Your task to perform on an android device: Go to wifi settings Image 0: 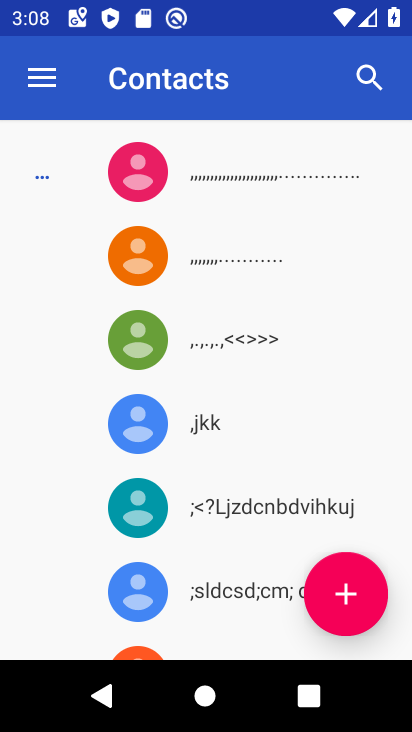
Step 0: press back button
Your task to perform on an android device: Go to wifi settings Image 1: 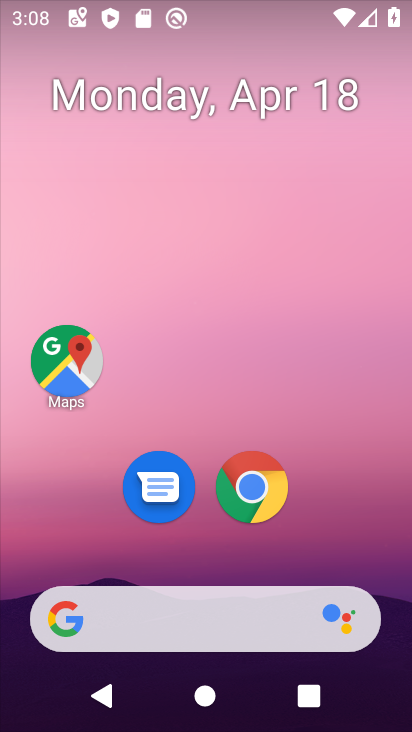
Step 1: drag from (386, 567) to (286, 2)
Your task to perform on an android device: Go to wifi settings Image 2: 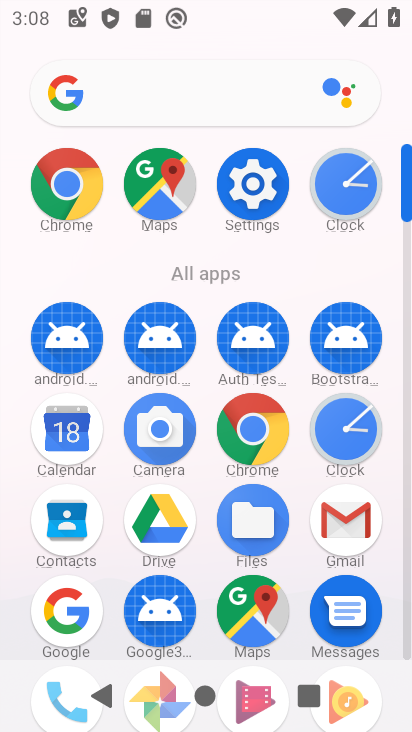
Step 2: click (251, 182)
Your task to perform on an android device: Go to wifi settings Image 3: 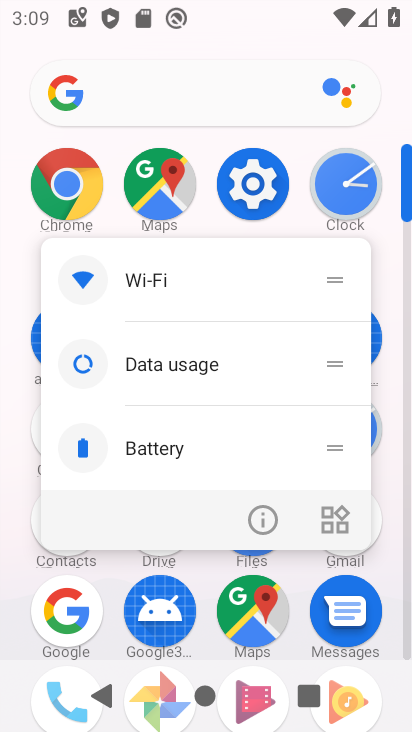
Step 3: click (199, 287)
Your task to perform on an android device: Go to wifi settings Image 4: 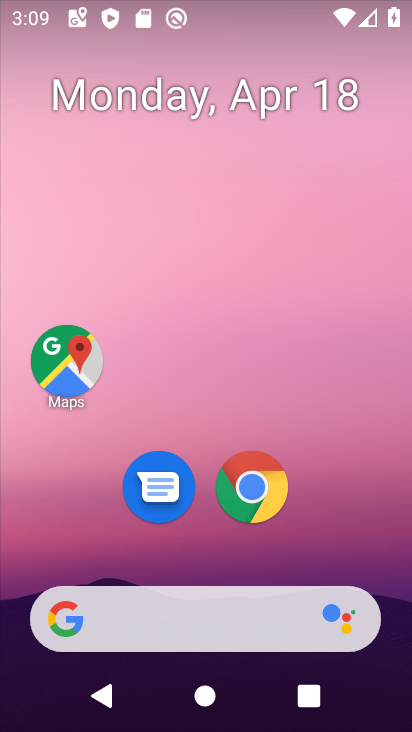
Step 4: drag from (355, 512) to (258, 0)
Your task to perform on an android device: Go to wifi settings Image 5: 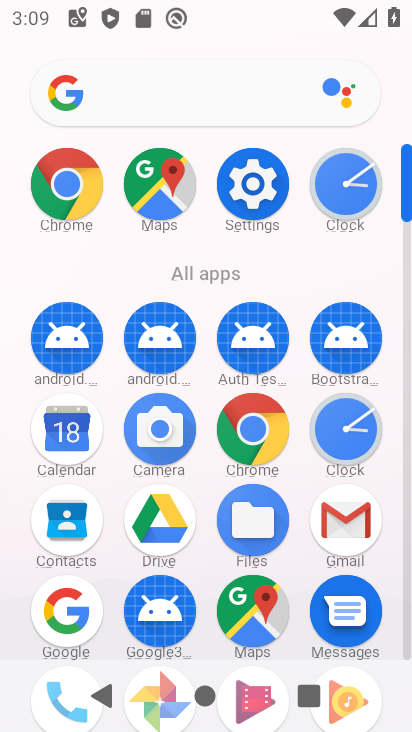
Step 5: click (254, 182)
Your task to perform on an android device: Go to wifi settings Image 6: 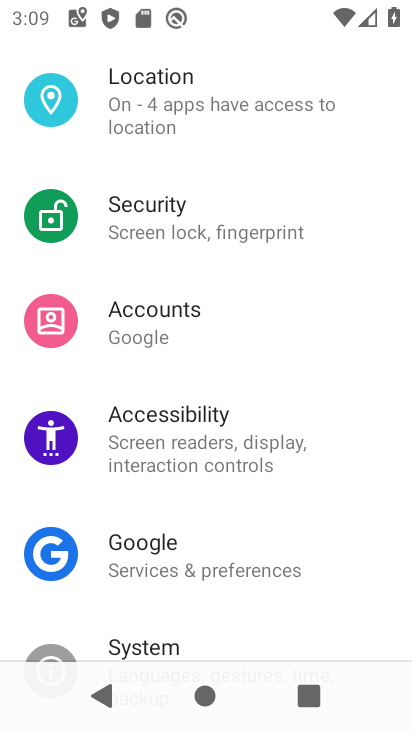
Step 6: drag from (270, 157) to (284, 500)
Your task to perform on an android device: Go to wifi settings Image 7: 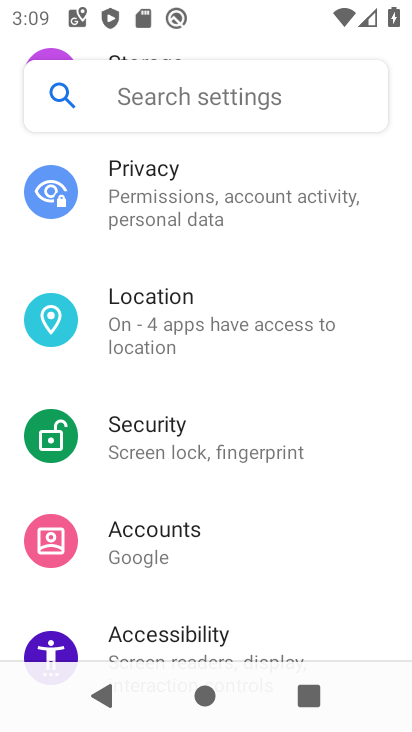
Step 7: drag from (252, 247) to (256, 679)
Your task to perform on an android device: Go to wifi settings Image 8: 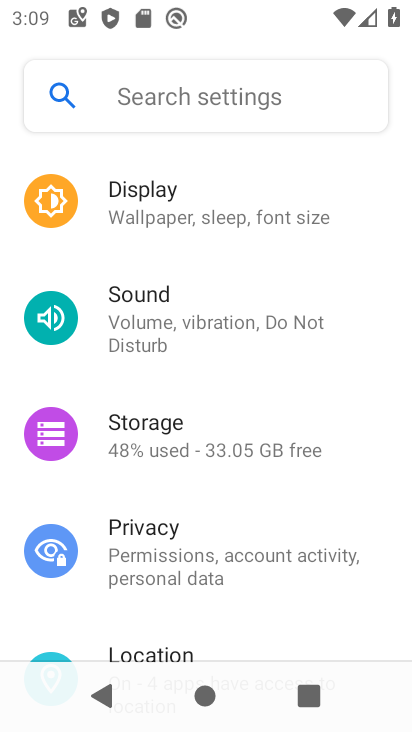
Step 8: drag from (257, 309) to (255, 731)
Your task to perform on an android device: Go to wifi settings Image 9: 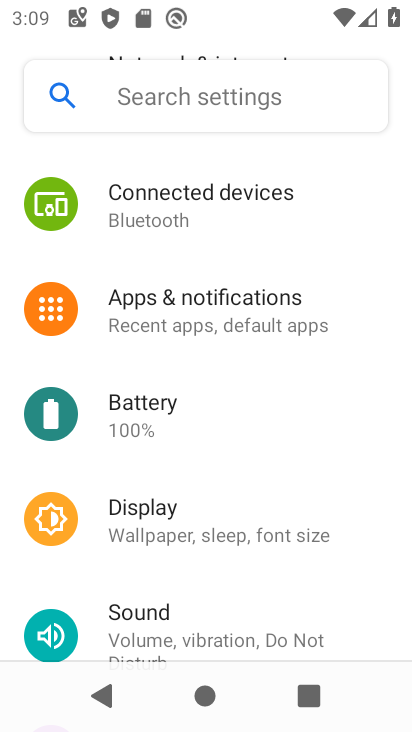
Step 9: drag from (262, 215) to (271, 594)
Your task to perform on an android device: Go to wifi settings Image 10: 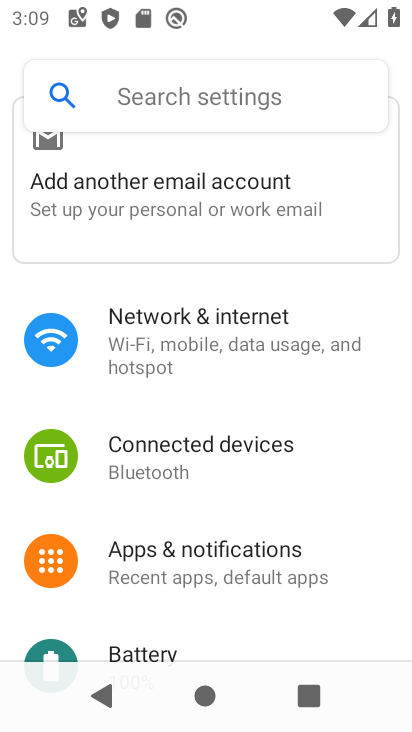
Step 10: click (242, 309)
Your task to perform on an android device: Go to wifi settings Image 11: 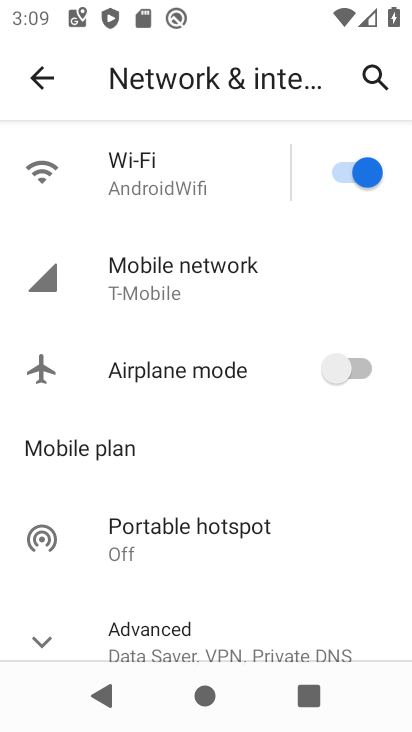
Step 11: click (158, 154)
Your task to perform on an android device: Go to wifi settings Image 12: 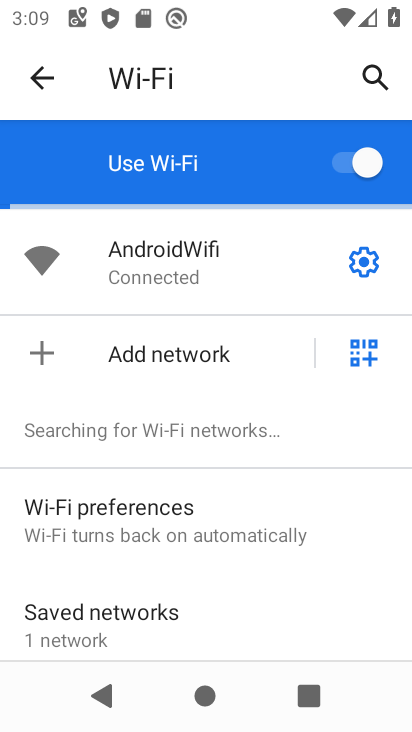
Step 12: task complete